Your task to perform on an android device: Set the phone to "Do not disturb". Image 0: 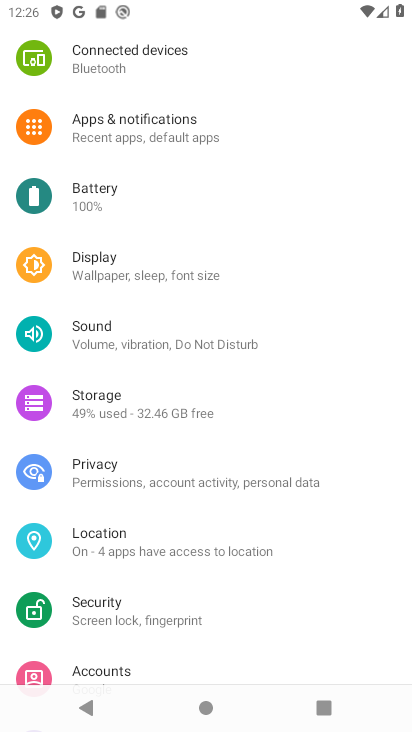
Step 0: click (163, 327)
Your task to perform on an android device: Set the phone to "Do not disturb". Image 1: 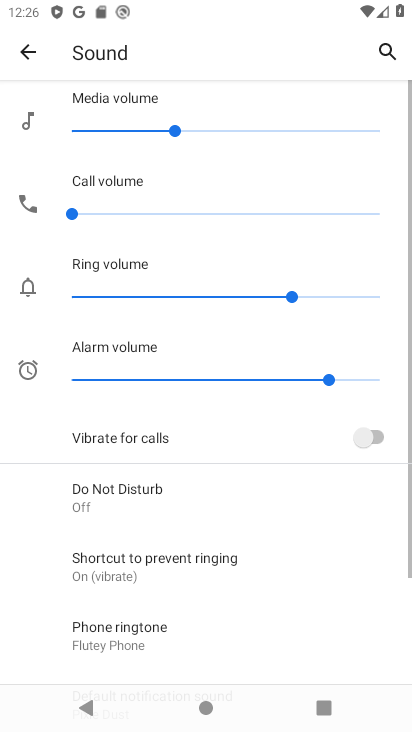
Step 1: drag from (180, 591) to (195, 477)
Your task to perform on an android device: Set the phone to "Do not disturb". Image 2: 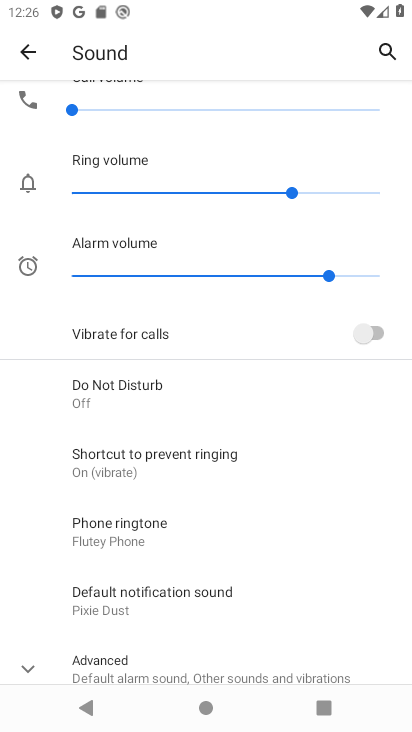
Step 2: click (155, 401)
Your task to perform on an android device: Set the phone to "Do not disturb". Image 3: 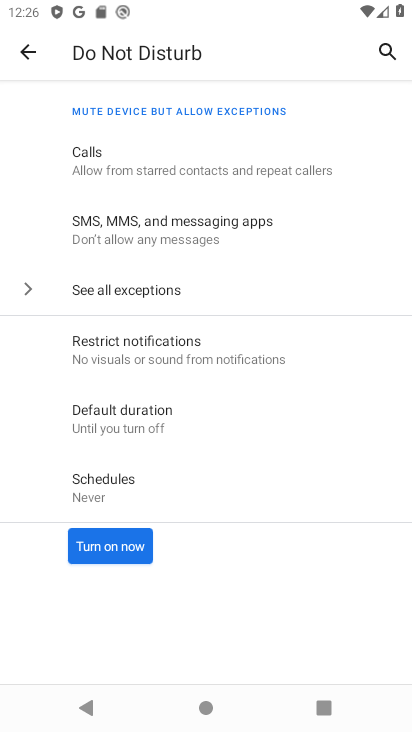
Step 3: click (113, 543)
Your task to perform on an android device: Set the phone to "Do not disturb". Image 4: 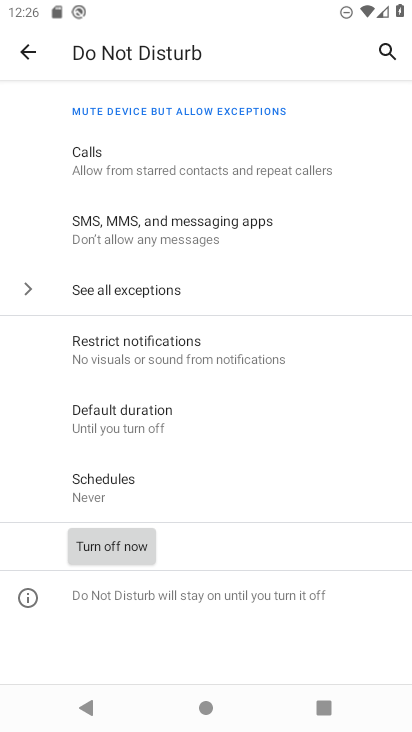
Step 4: task complete